Your task to perform on an android device: Show the shopping cart on target.com. Search for "beats solo 3" on target.com, select the first entry, add it to the cart, then select checkout. Image 0: 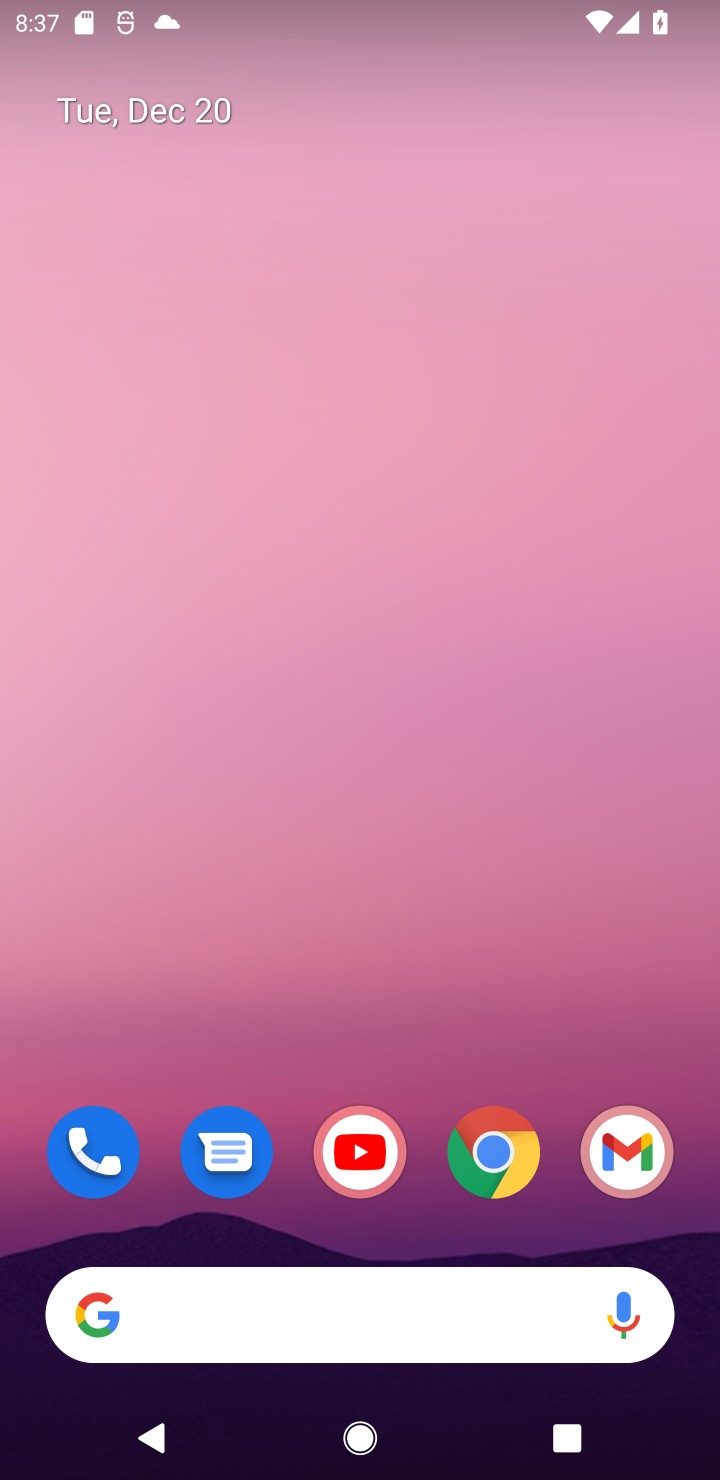
Step 0: click (500, 1173)
Your task to perform on an android device: Show the shopping cart on target.com. Search for "beats solo 3" on target.com, select the first entry, add it to the cart, then select checkout. Image 1: 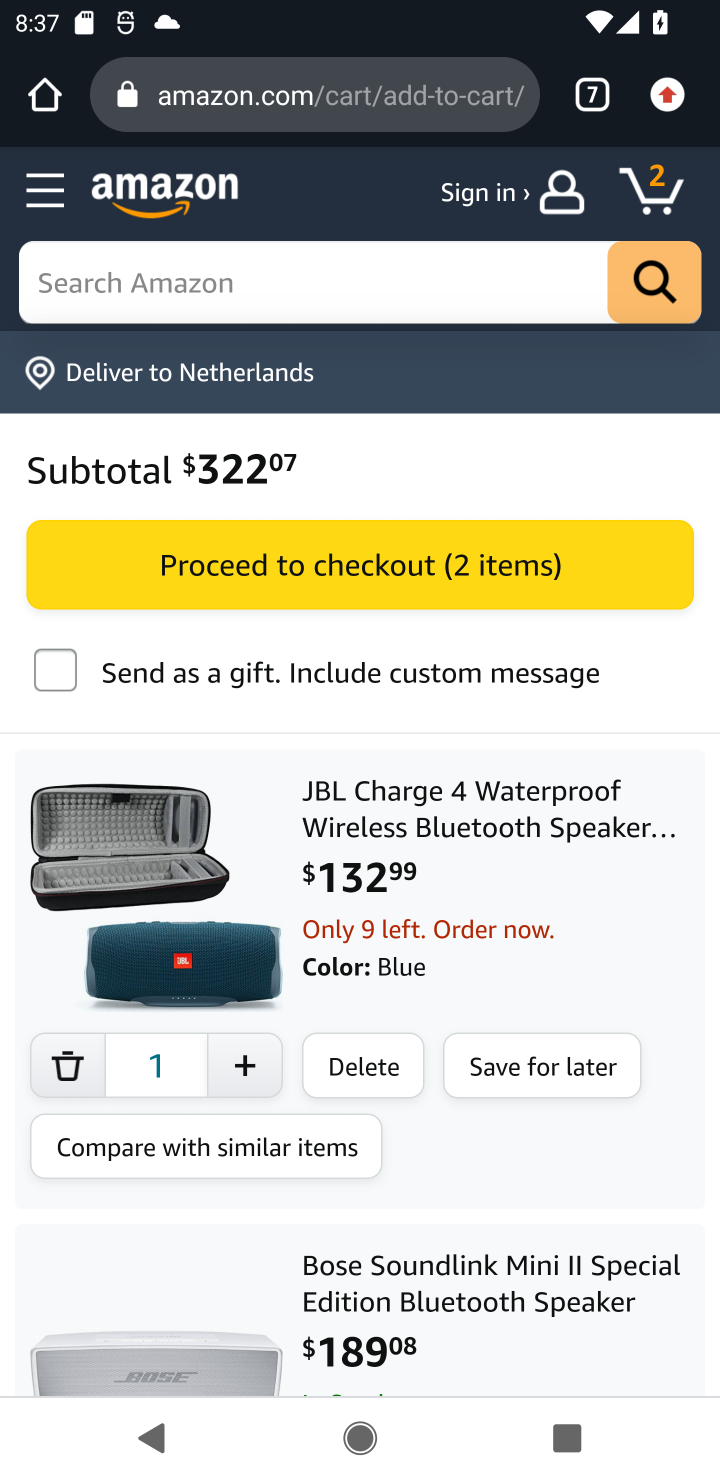
Step 1: click (596, 85)
Your task to perform on an android device: Show the shopping cart on target.com. Search for "beats solo 3" on target.com, select the first entry, add it to the cart, then select checkout. Image 2: 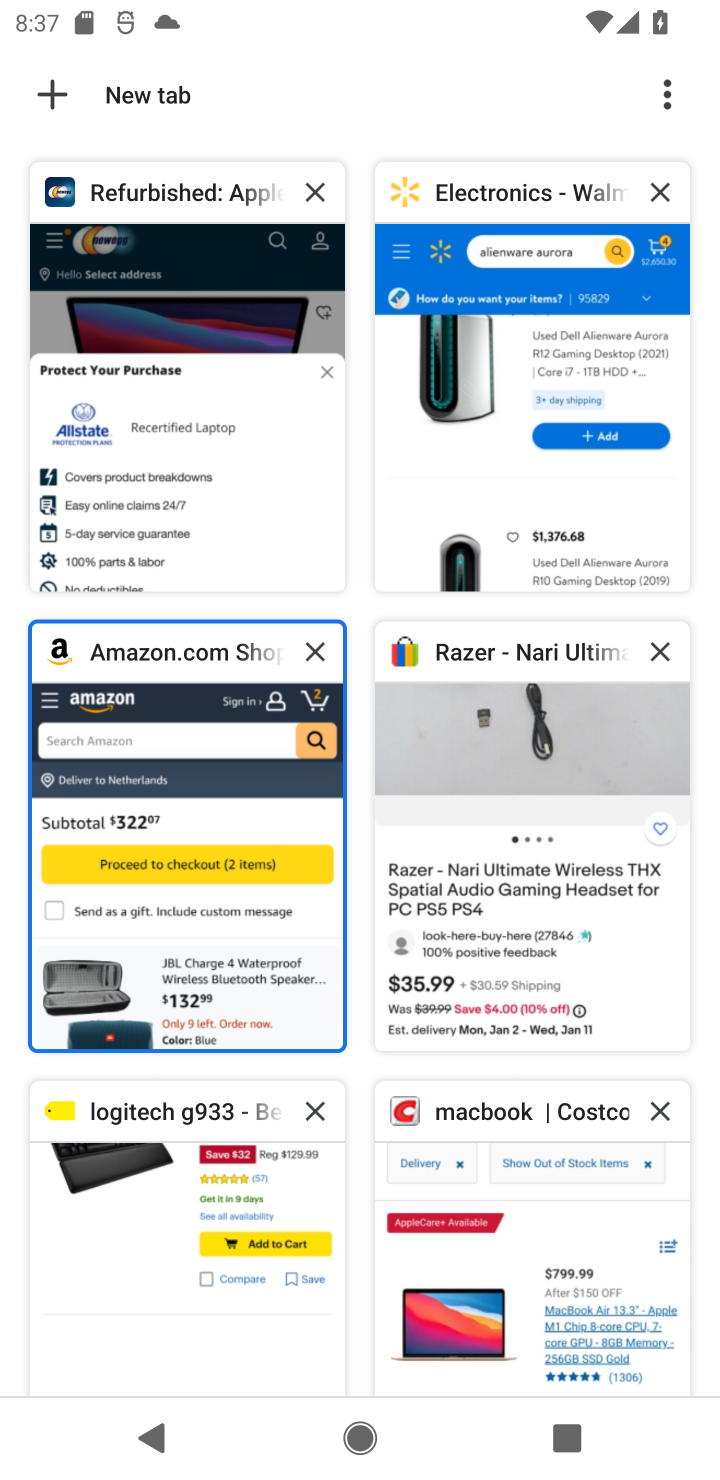
Step 2: drag from (454, 1280) to (538, 470)
Your task to perform on an android device: Show the shopping cart on target.com. Search for "beats solo 3" on target.com, select the first entry, add it to the cart, then select checkout. Image 3: 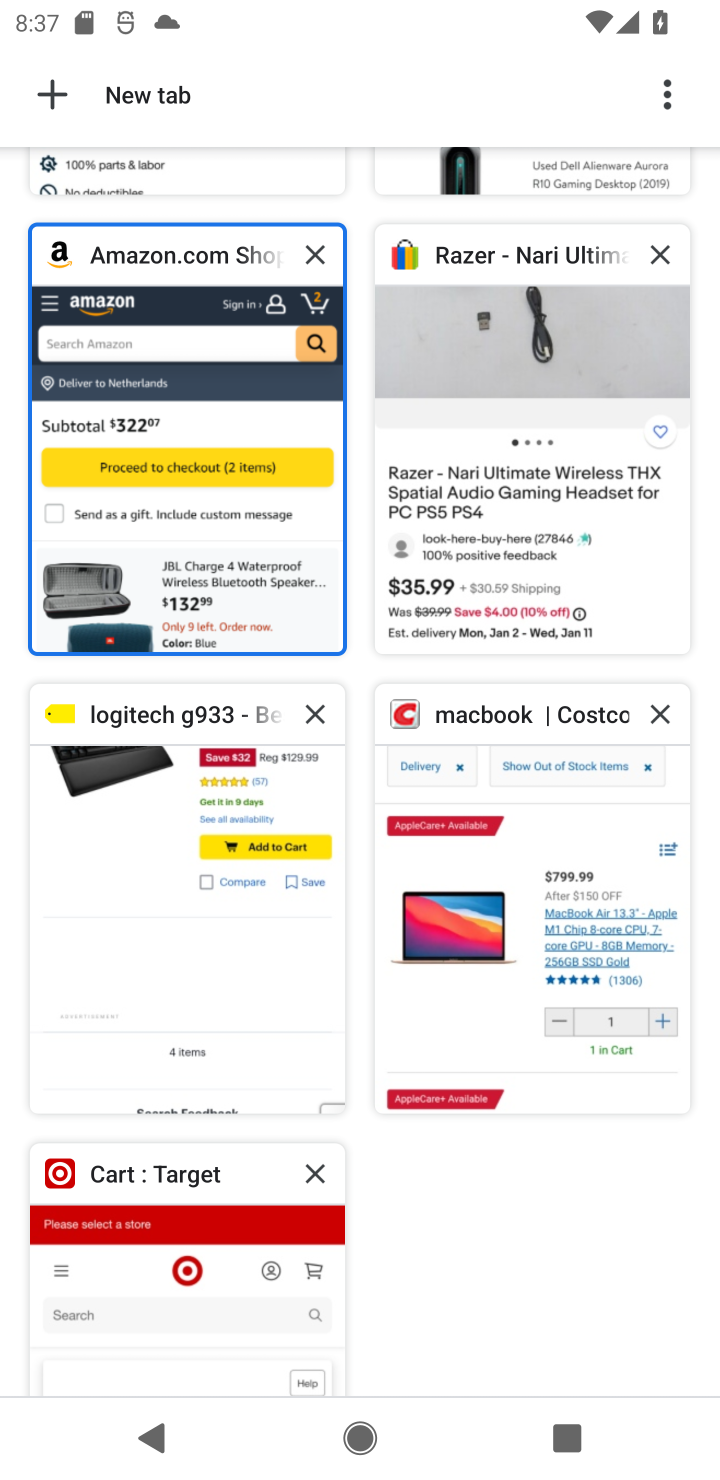
Step 3: click (208, 1278)
Your task to perform on an android device: Show the shopping cart on target.com. Search for "beats solo 3" on target.com, select the first entry, add it to the cart, then select checkout. Image 4: 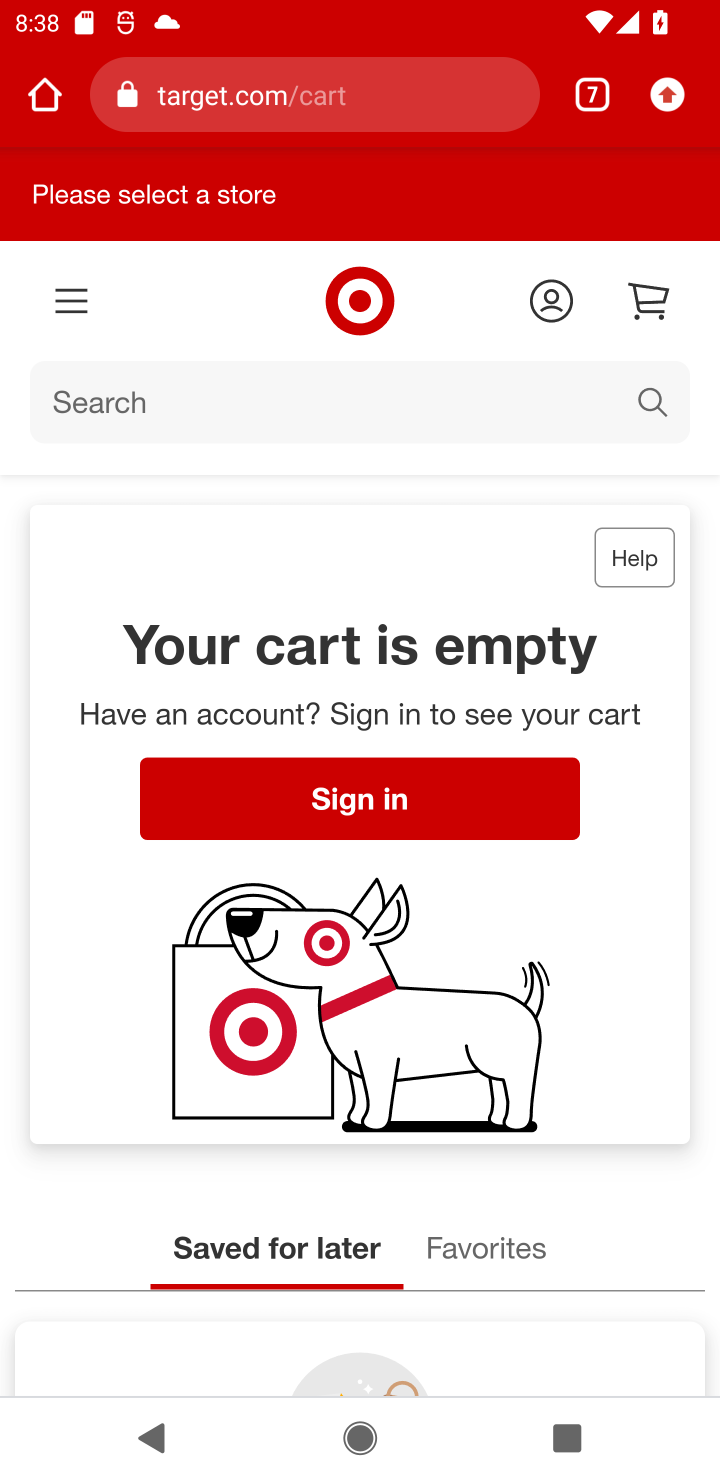
Step 4: click (267, 401)
Your task to perform on an android device: Show the shopping cart on target.com. Search for "beats solo 3" on target.com, select the first entry, add it to the cart, then select checkout. Image 5: 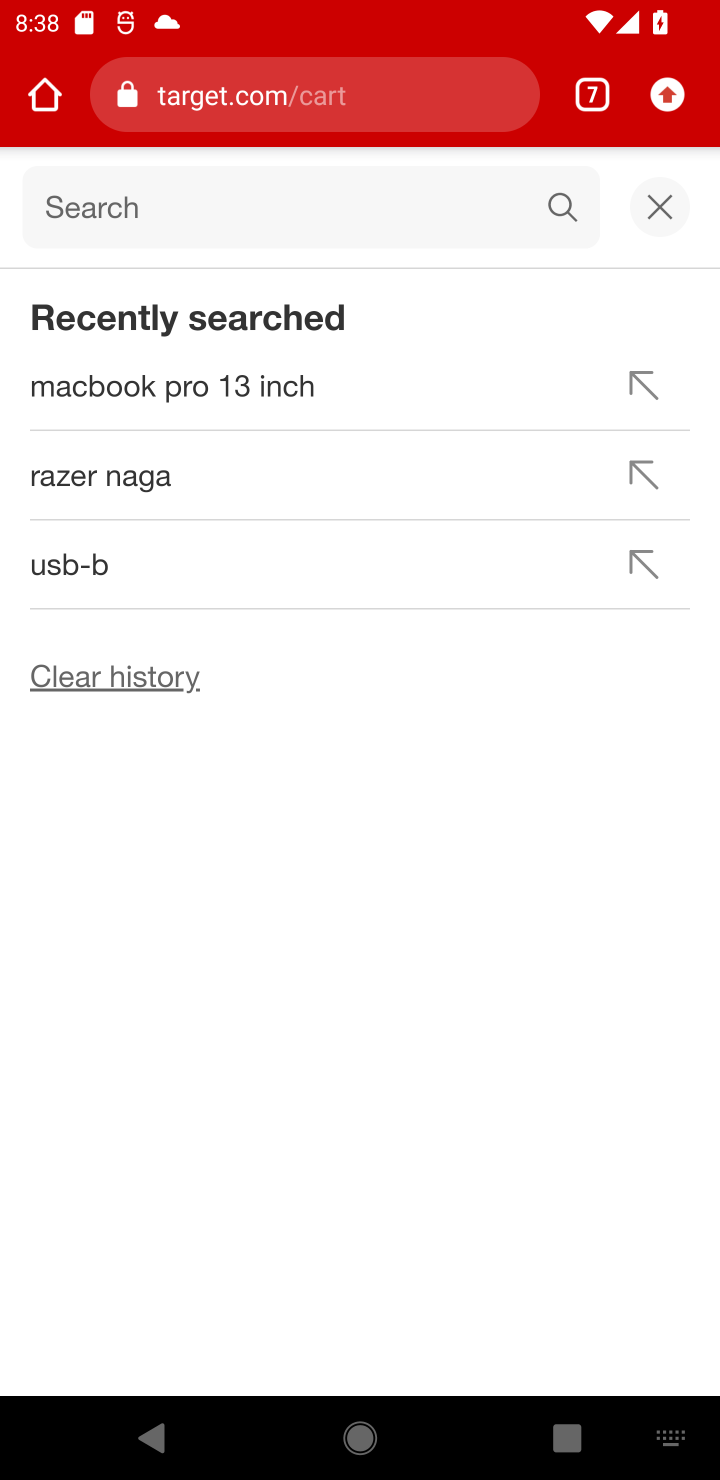
Step 5: type "beats solo 3"
Your task to perform on an android device: Show the shopping cart on target.com. Search for "beats solo 3" on target.com, select the first entry, add it to the cart, then select checkout. Image 6: 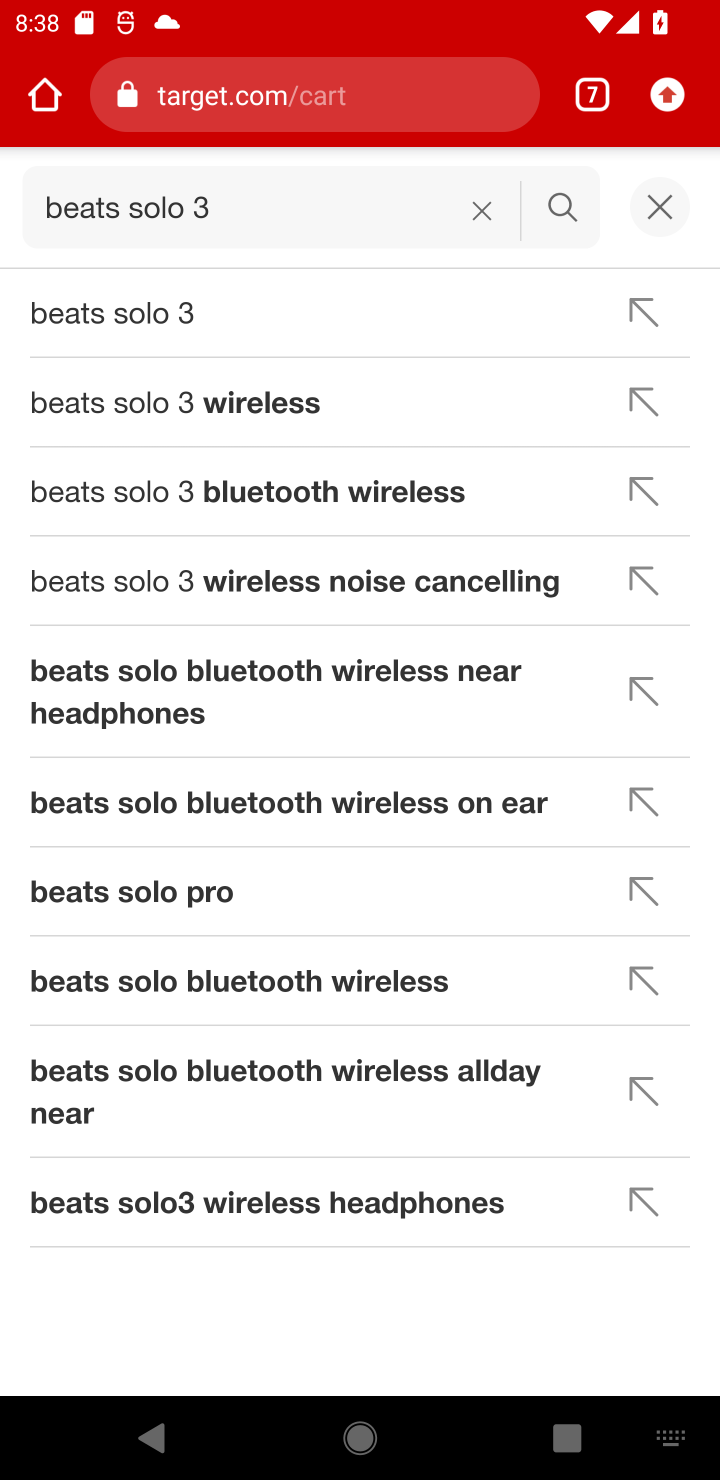
Step 6: click (370, 222)
Your task to perform on an android device: Show the shopping cart on target.com. Search for "beats solo 3" on target.com, select the first entry, add it to the cart, then select checkout. Image 7: 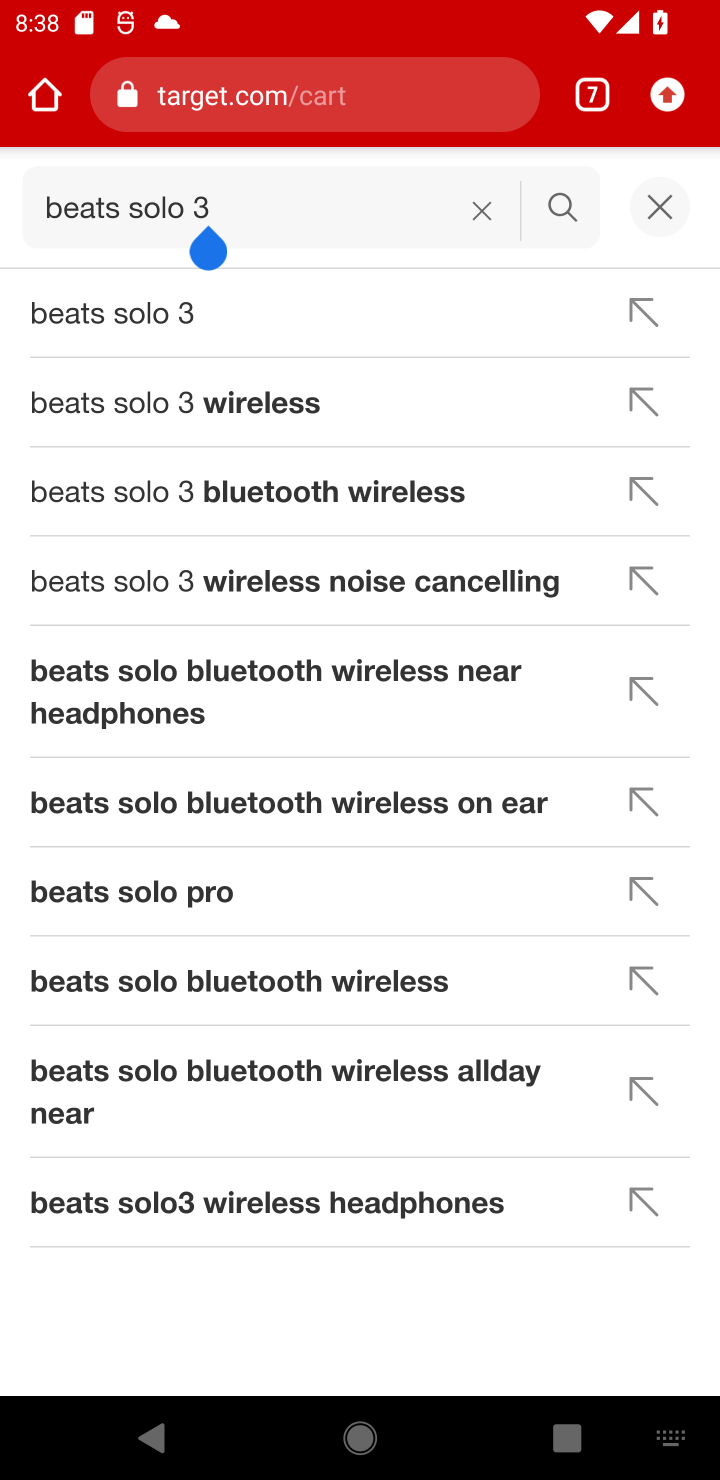
Step 7: click (134, 316)
Your task to perform on an android device: Show the shopping cart on target.com. Search for "beats solo 3" on target.com, select the first entry, add it to the cart, then select checkout. Image 8: 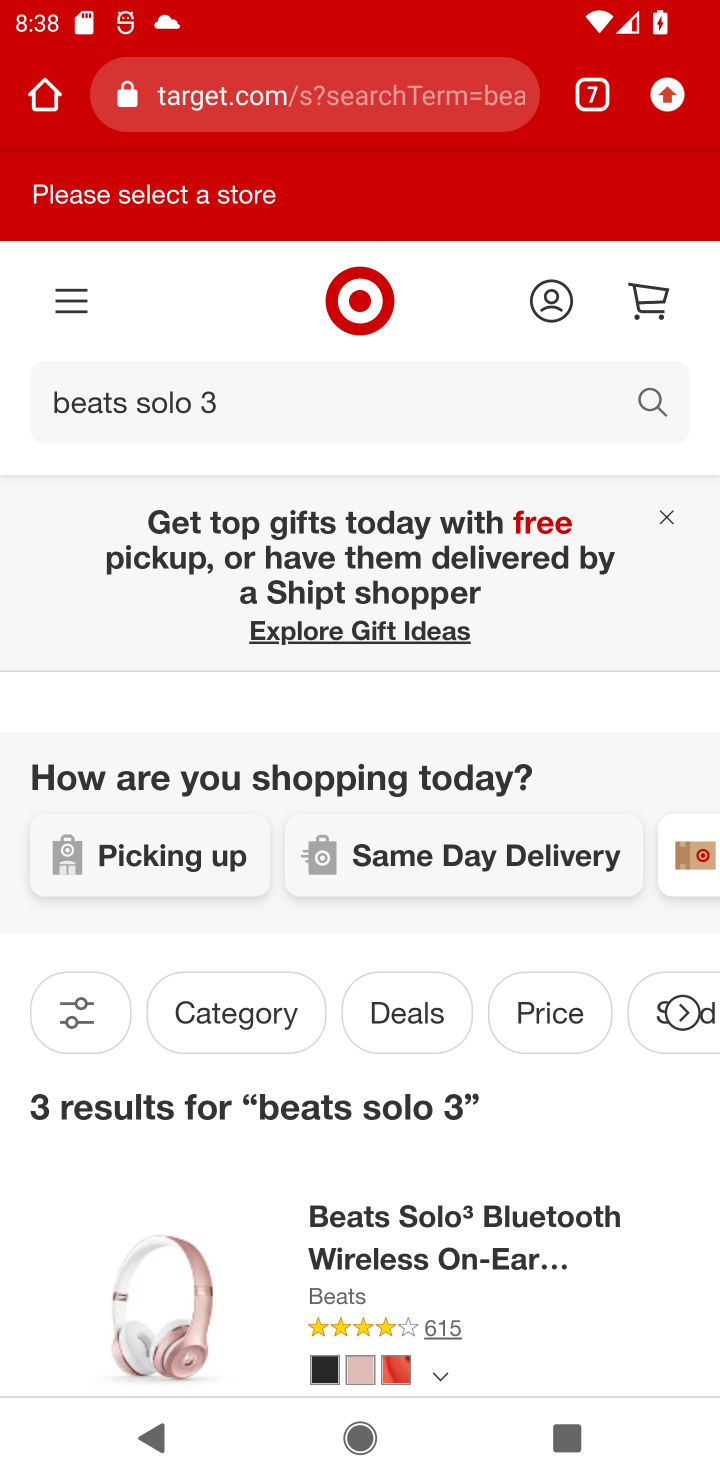
Step 8: drag from (385, 1253) to (545, 473)
Your task to perform on an android device: Show the shopping cart on target.com. Search for "beats solo 3" on target.com, select the first entry, add it to the cart, then select checkout. Image 9: 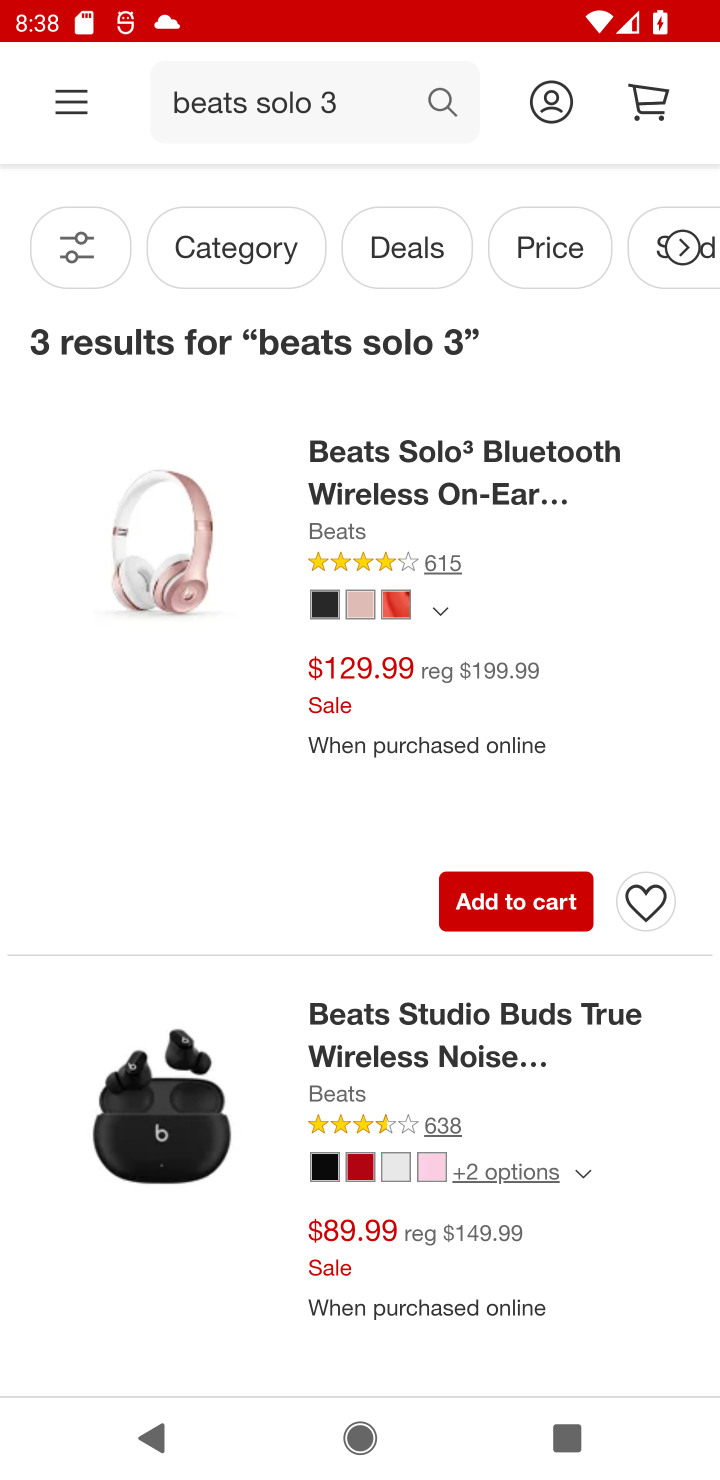
Step 9: click (513, 890)
Your task to perform on an android device: Show the shopping cart on target.com. Search for "beats solo 3" on target.com, select the first entry, add it to the cart, then select checkout. Image 10: 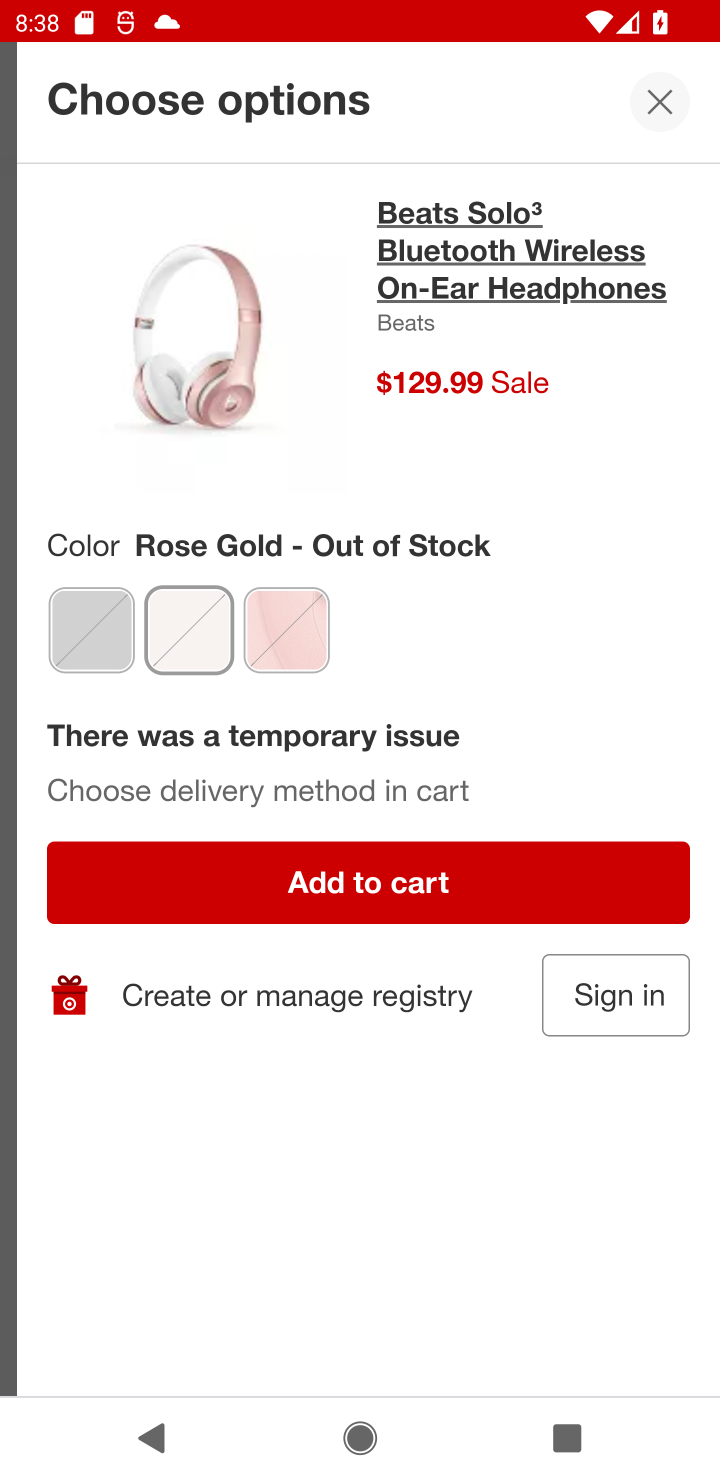
Step 10: click (247, 867)
Your task to perform on an android device: Show the shopping cart on target.com. Search for "beats solo 3" on target.com, select the first entry, add it to the cart, then select checkout. Image 11: 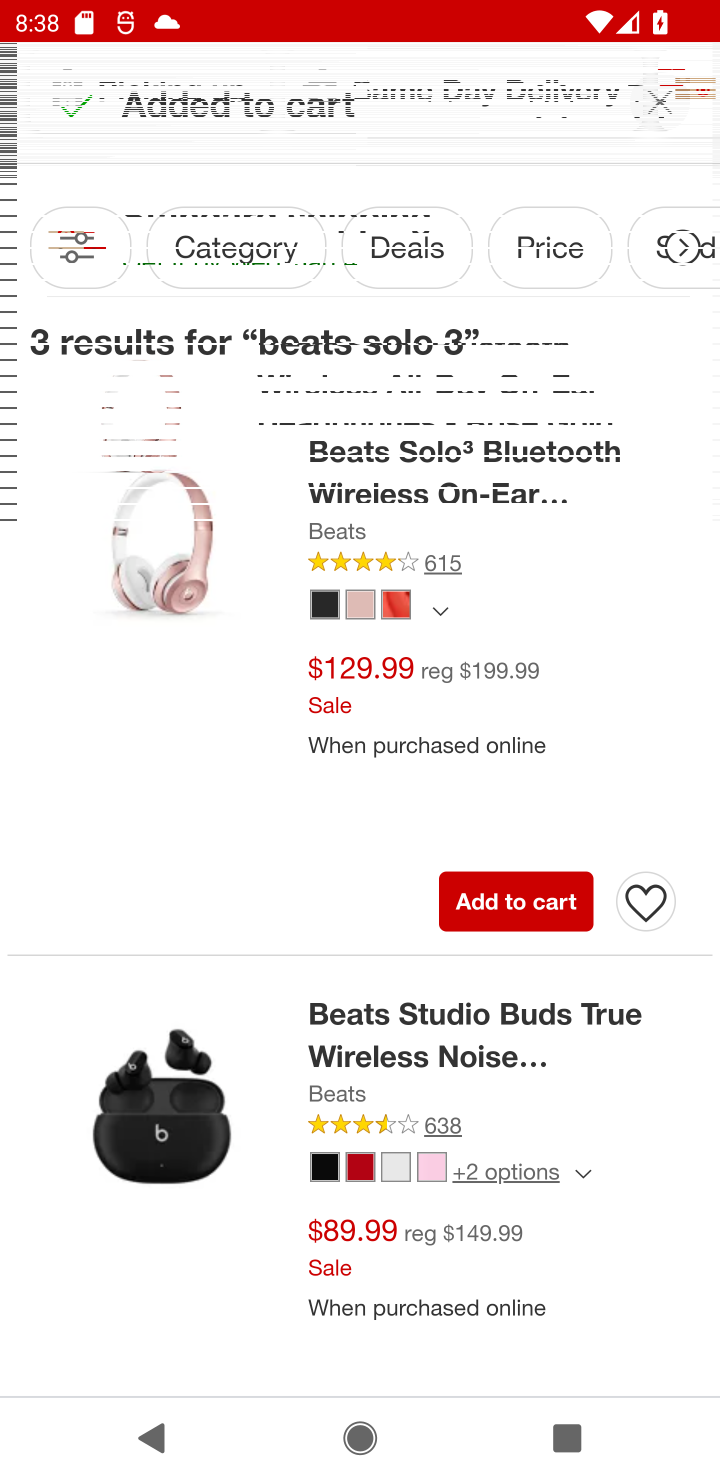
Step 11: task complete